Your task to perform on an android device: Open Google Chrome and click the shortcut for Amazon.com Image 0: 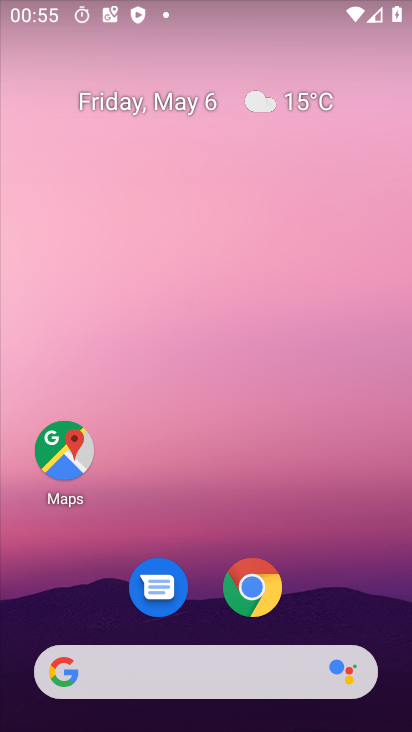
Step 0: drag from (380, 491) to (380, 367)
Your task to perform on an android device: Open Google Chrome and click the shortcut for Amazon.com Image 1: 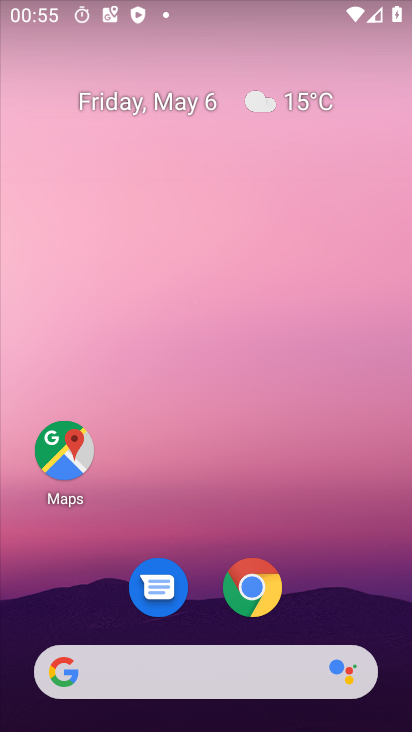
Step 1: drag from (386, 639) to (381, 215)
Your task to perform on an android device: Open Google Chrome and click the shortcut for Amazon.com Image 2: 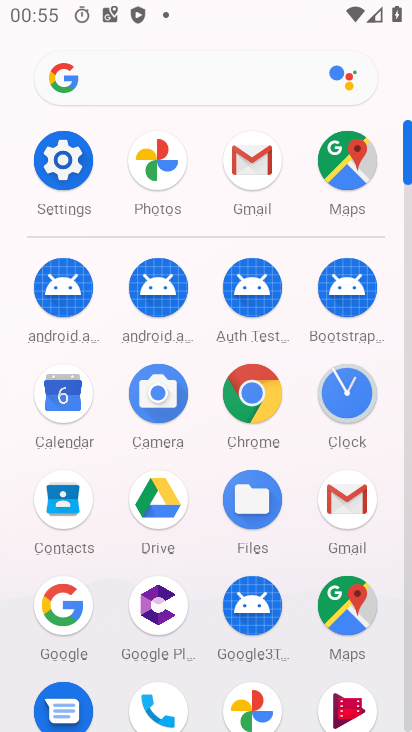
Step 2: drag from (407, 134) to (401, 95)
Your task to perform on an android device: Open Google Chrome and click the shortcut for Amazon.com Image 3: 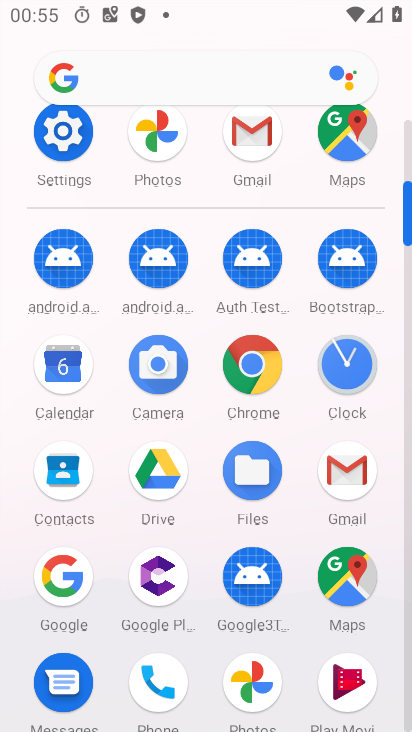
Step 3: click (239, 358)
Your task to perform on an android device: Open Google Chrome and click the shortcut for Amazon.com Image 4: 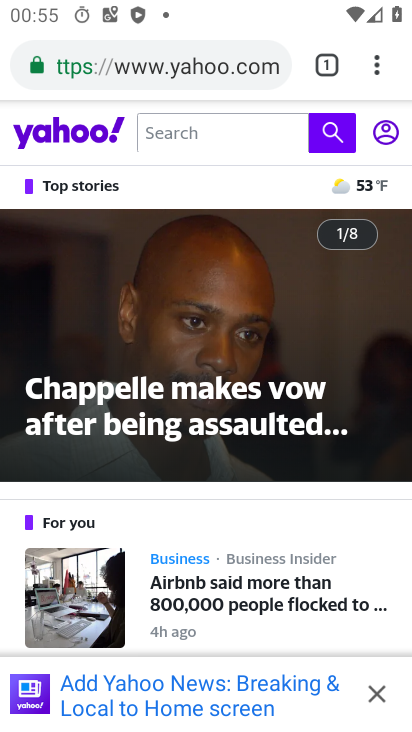
Step 4: click (376, 58)
Your task to perform on an android device: Open Google Chrome and click the shortcut for Amazon.com Image 5: 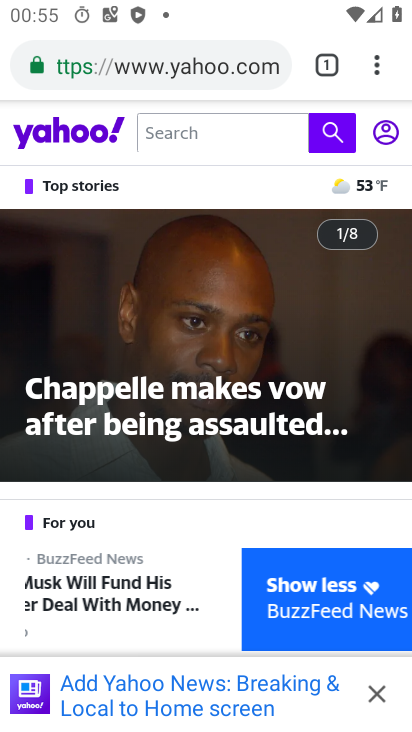
Step 5: click (377, 64)
Your task to perform on an android device: Open Google Chrome and click the shortcut for Amazon.com Image 6: 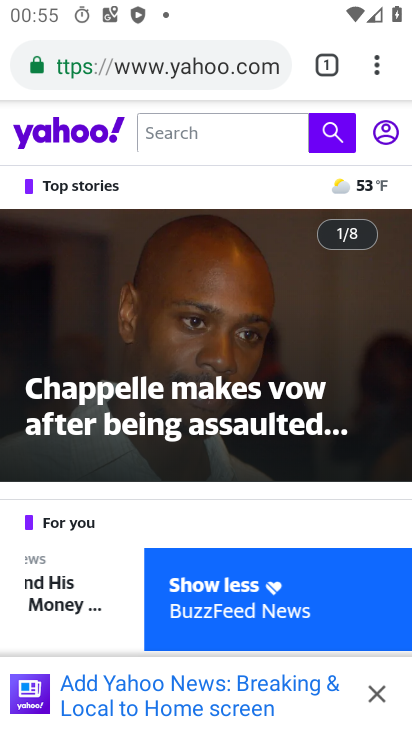
Step 6: click (368, 63)
Your task to perform on an android device: Open Google Chrome and click the shortcut for Amazon.com Image 7: 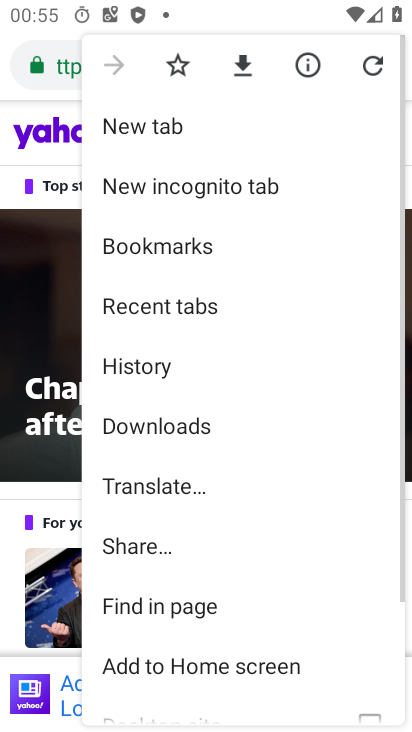
Step 7: click (171, 127)
Your task to perform on an android device: Open Google Chrome and click the shortcut for Amazon.com Image 8: 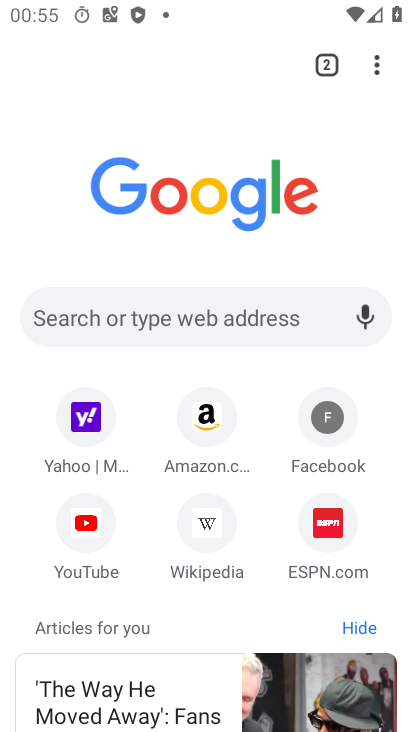
Step 8: click (199, 433)
Your task to perform on an android device: Open Google Chrome and click the shortcut for Amazon.com Image 9: 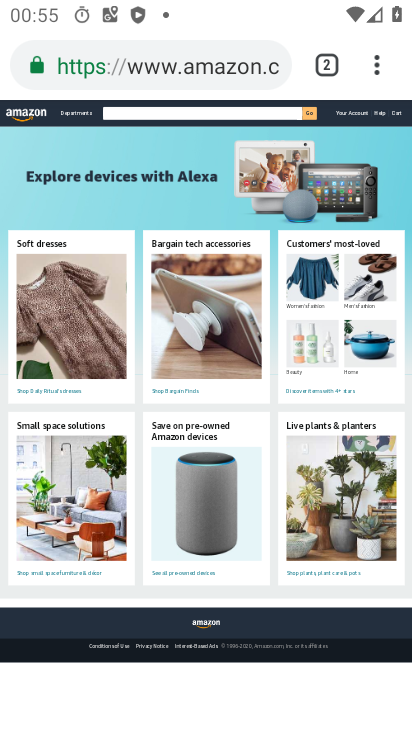
Step 9: task complete